Your task to perform on an android device: Go to Wikipedia Image 0: 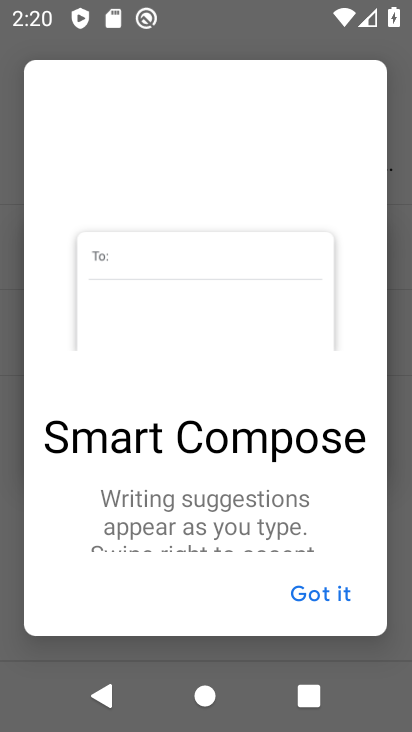
Step 0: press home button
Your task to perform on an android device: Go to Wikipedia Image 1: 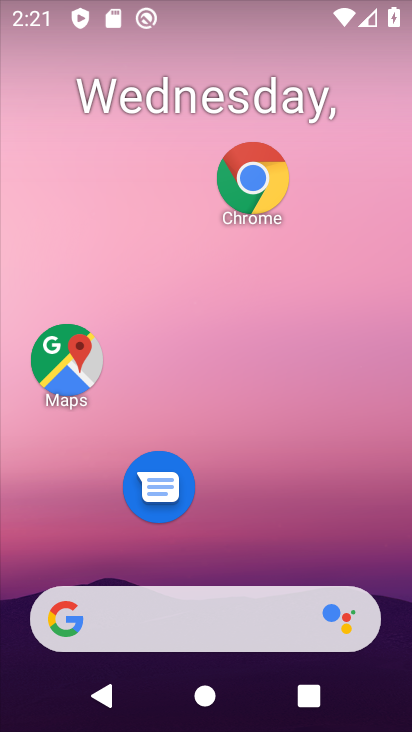
Step 1: click (260, 176)
Your task to perform on an android device: Go to Wikipedia Image 2: 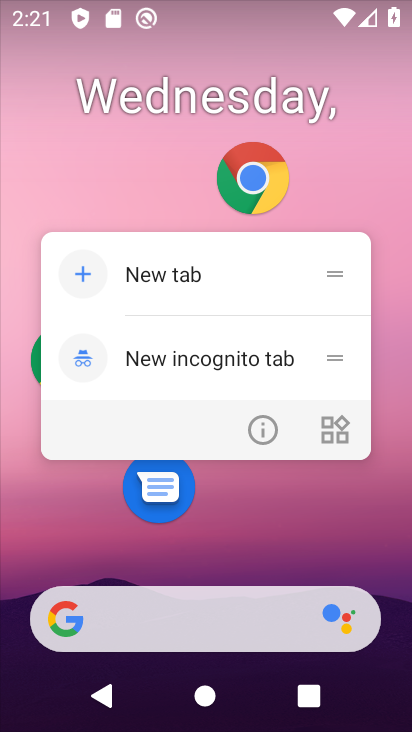
Step 2: click (259, 173)
Your task to perform on an android device: Go to Wikipedia Image 3: 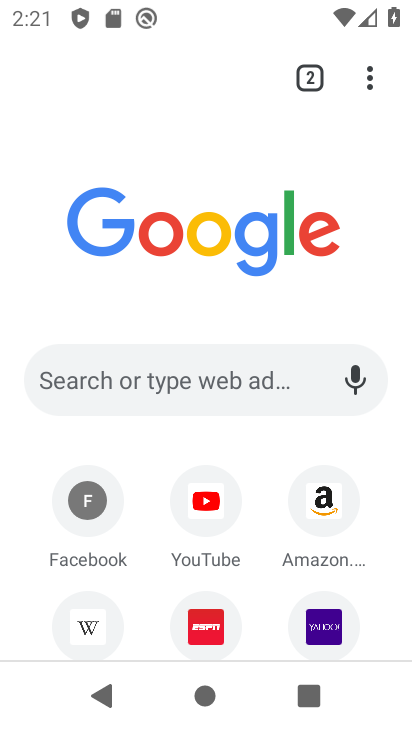
Step 3: click (79, 624)
Your task to perform on an android device: Go to Wikipedia Image 4: 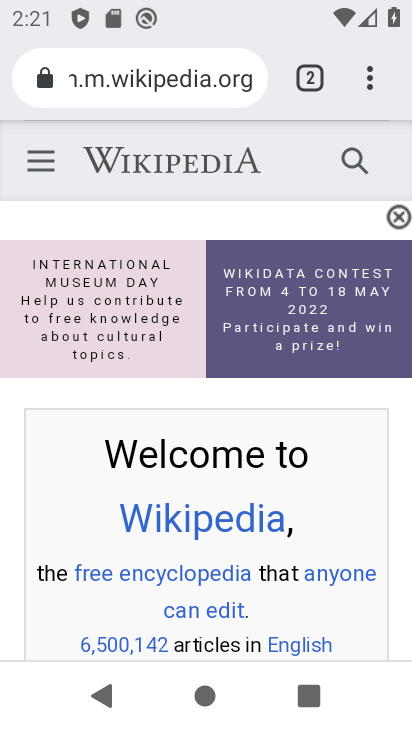
Step 4: task complete